Your task to perform on an android device: turn off wifi Image 0: 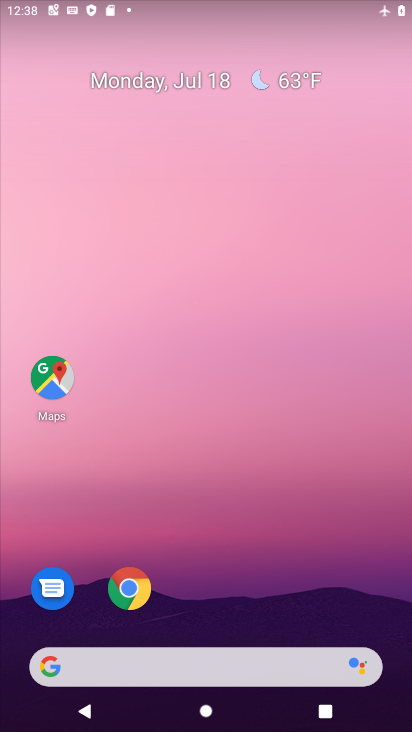
Step 0: drag from (244, 722) to (207, 115)
Your task to perform on an android device: turn off wifi Image 1: 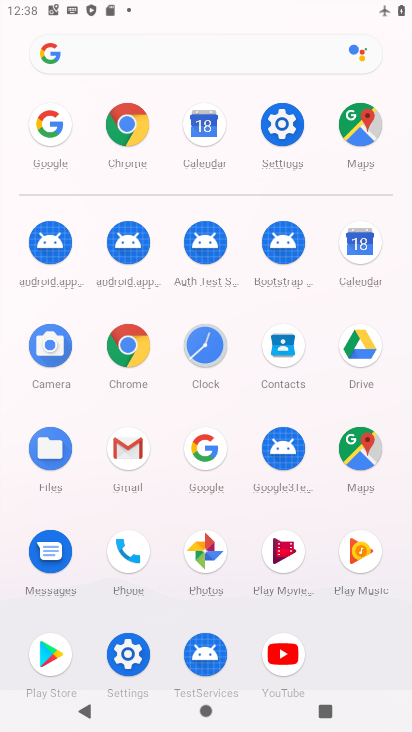
Step 1: click (273, 128)
Your task to perform on an android device: turn off wifi Image 2: 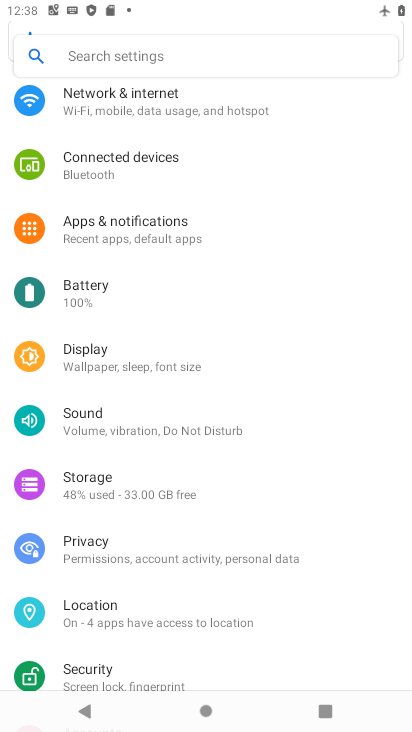
Step 2: drag from (120, 113) to (135, 495)
Your task to perform on an android device: turn off wifi Image 3: 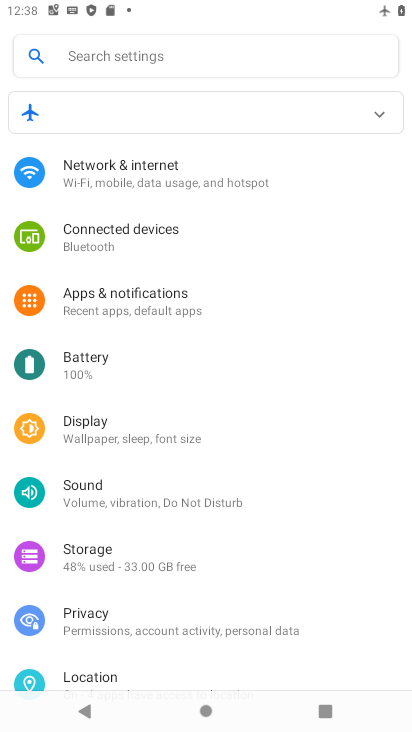
Step 3: click (105, 174)
Your task to perform on an android device: turn off wifi Image 4: 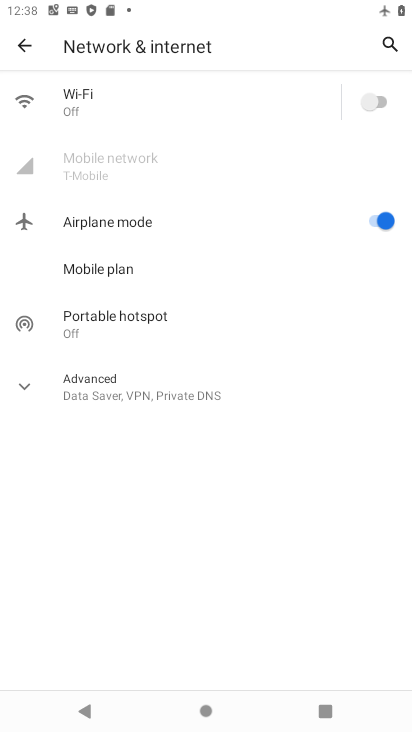
Step 4: task complete